Your task to perform on an android device: Go to ESPN.com Image 0: 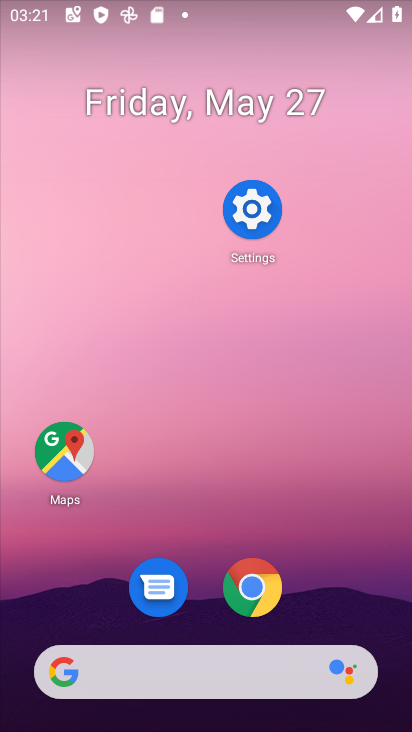
Step 0: click (259, 676)
Your task to perform on an android device: Go to ESPN.com Image 1: 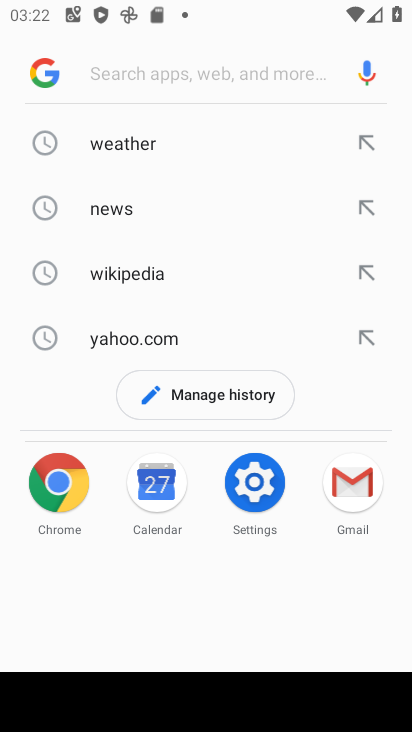
Step 1: type "ESPN.com"
Your task to perform on an android device: Go to ESPN.com Image 2: 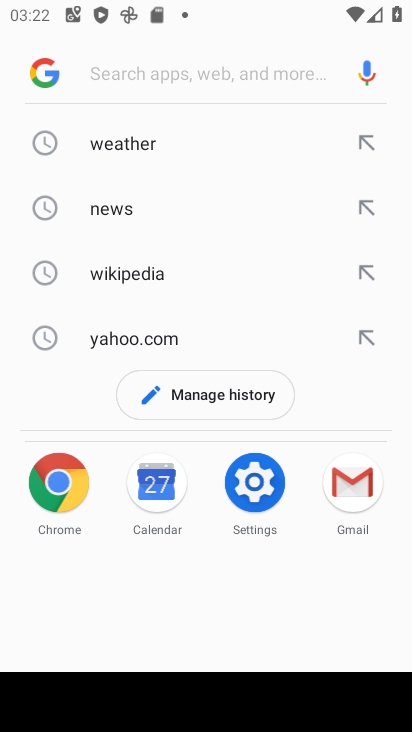
Step 2: click (173, 80)
Your task to perform on an android device: Go to ESPN.com Image 3: 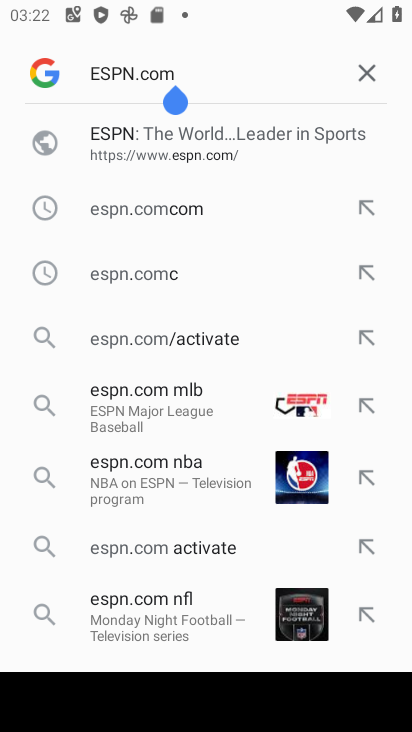
Step 3: click (206, 135)
Your task to perform on an android device: Go to ESPN.com Image 4: 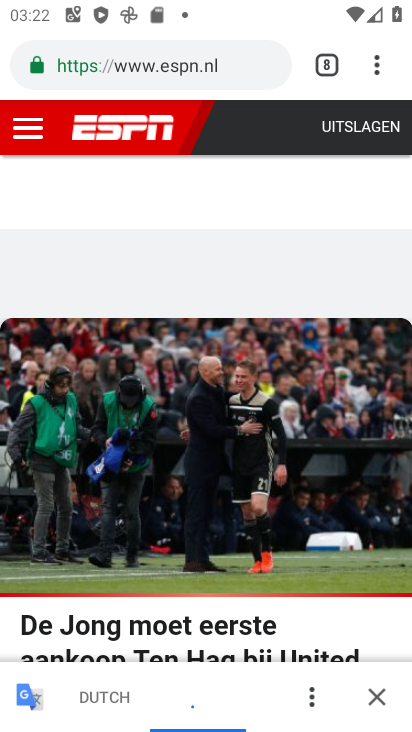
Step 4: task complete